Your task to perform on an android device: Open the calendar app, open the side menu, and click the "Day" option Image 0: 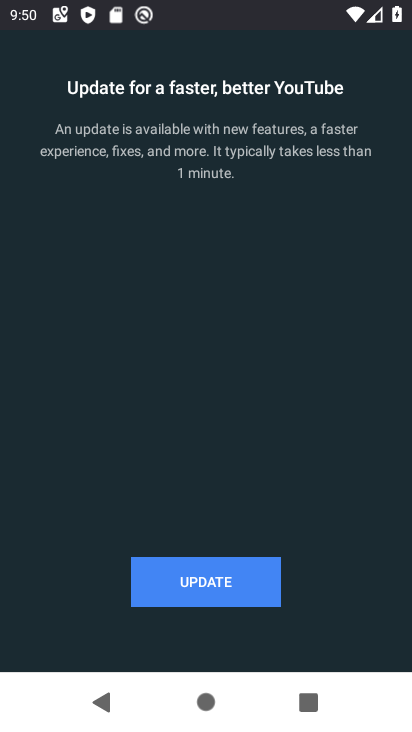
Step 0: press home button
Your task to perform on an android device: Open the calendar app, open the side menu, and click the "Day" option Image 1: 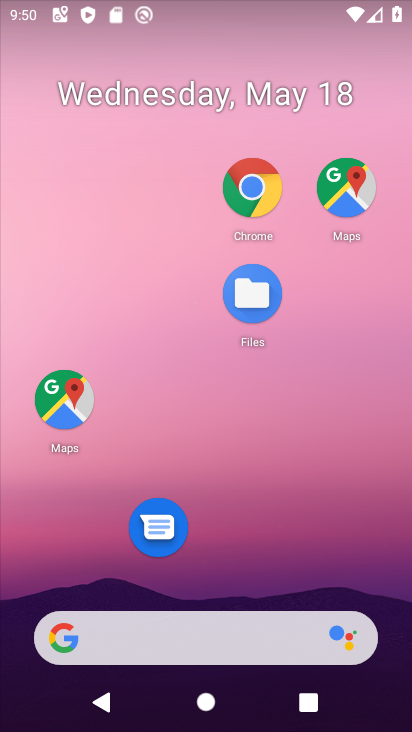
Step 1: drag from (313, 467) to (313, 94)
Your task to perform on an android device: Open the calendar app, open the side menu, and click the "Day" option Image 2: 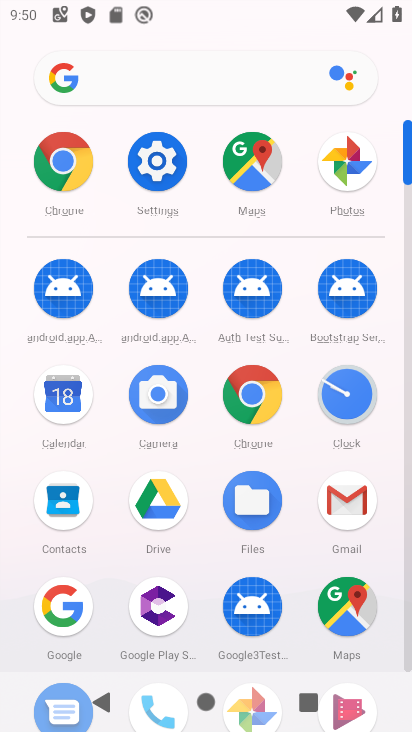
Step 2: click (61, 414)
Your task to perform on an android device: Open the calendar app, open the side menu, and click the "Day" option Image 3: 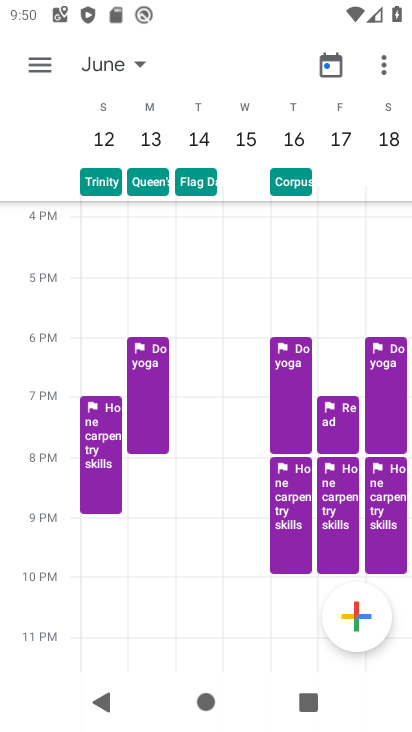
Step 3: click (42, 58)
Your task to perform on an android device: Open the calendar app, open the side menu, and click the "Day" option Image 4: 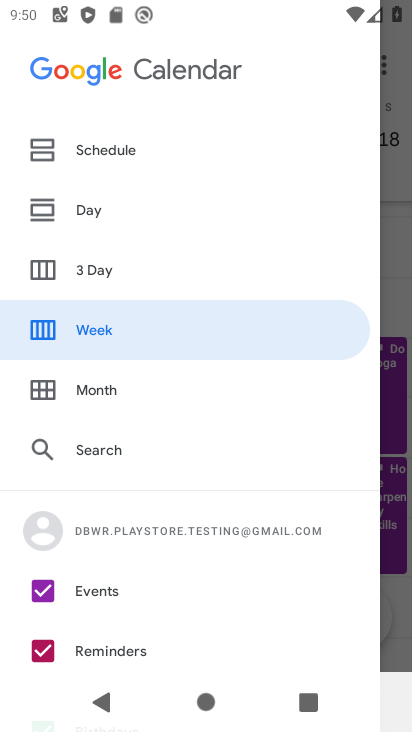
Step 4: click (71, 211)
Your task to perform on an android device: Open the calendar app, open the side menu, and click the "Day" option Image 5: 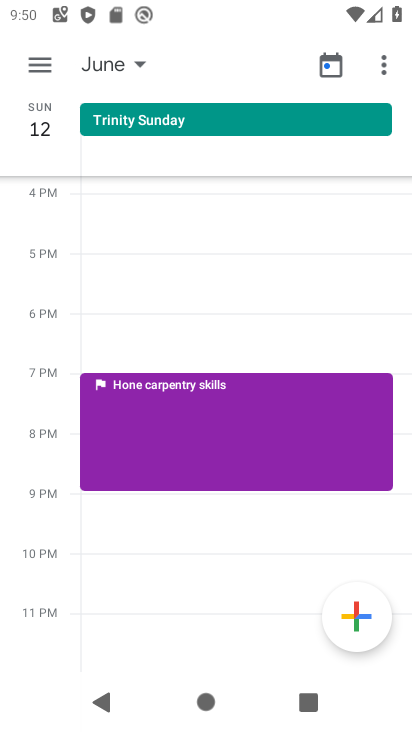
Step 5: task complete